Your task to perform on an android device: Go to wifi settings Image 0: 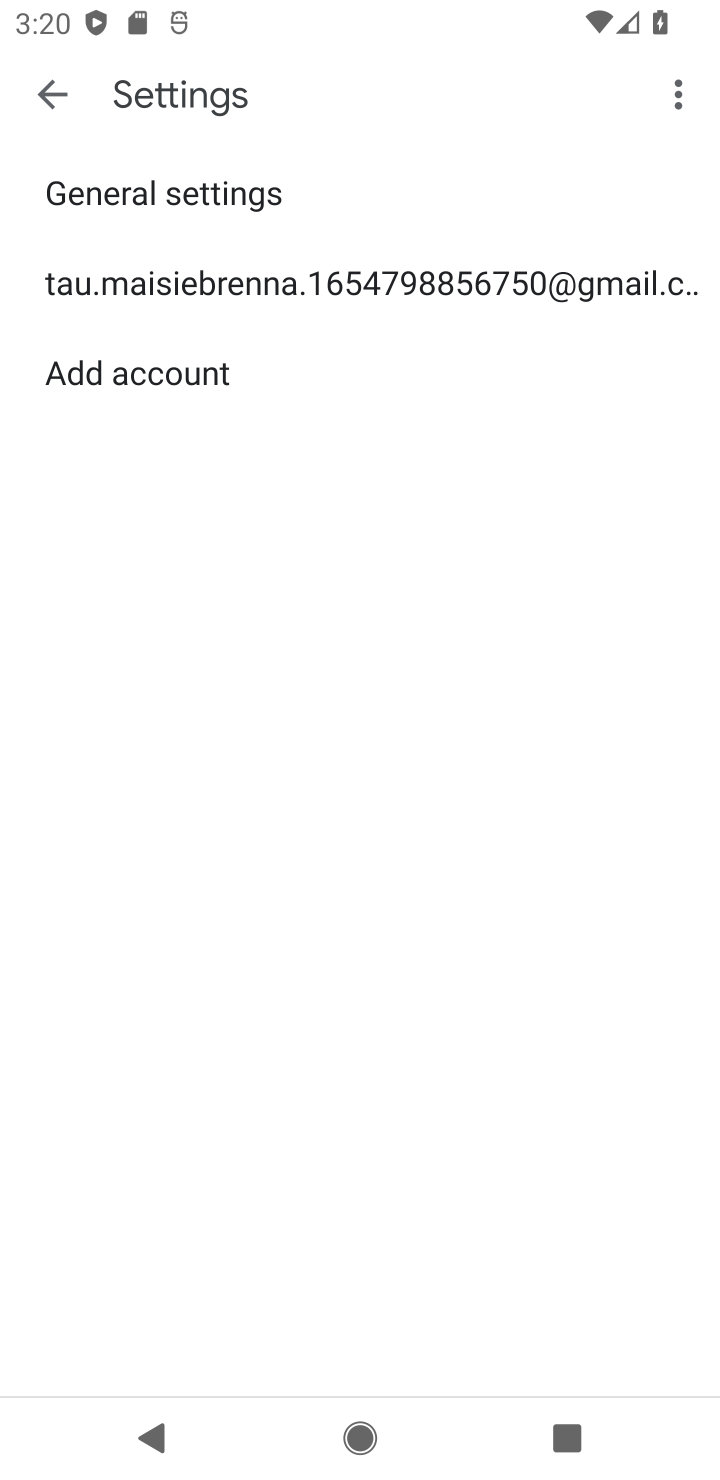
Step 0: press back button
Your task to perform on an android device: Go to wifi settings Image 1: 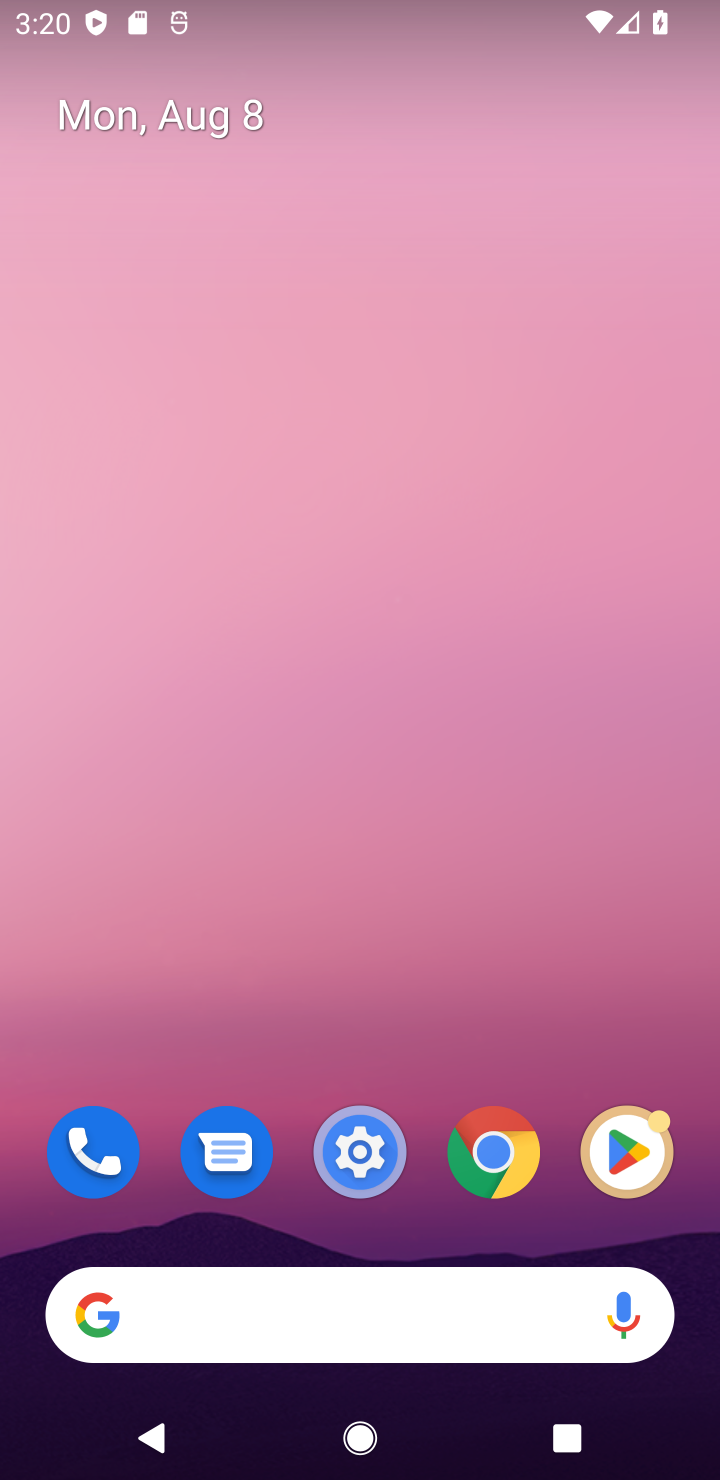
Step 1: drag from (427, 17) to (316, 989)
Your task to perform on an android device: Go to wifi settings Image 2: 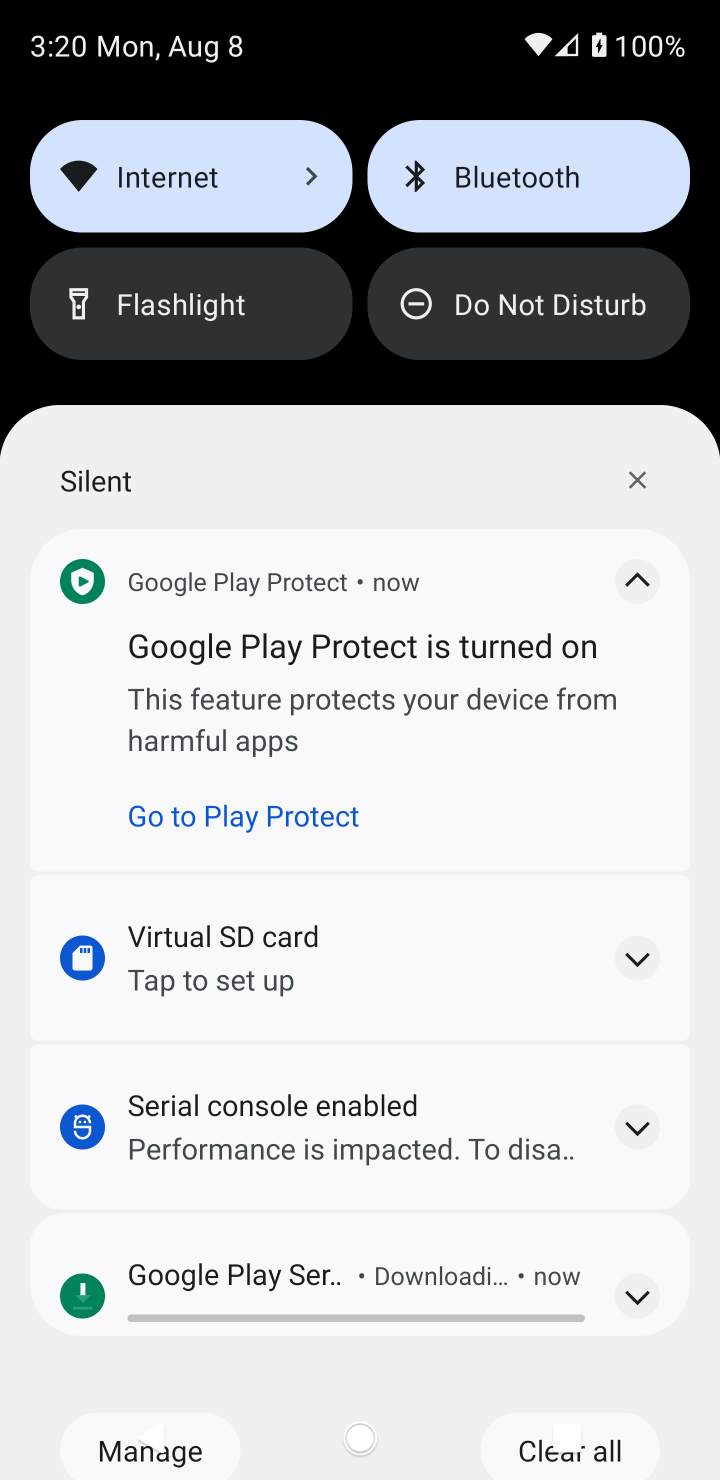
Step 2: click (168, 190)
Your task to perform on an android device: Go to wifi settings Image 3: 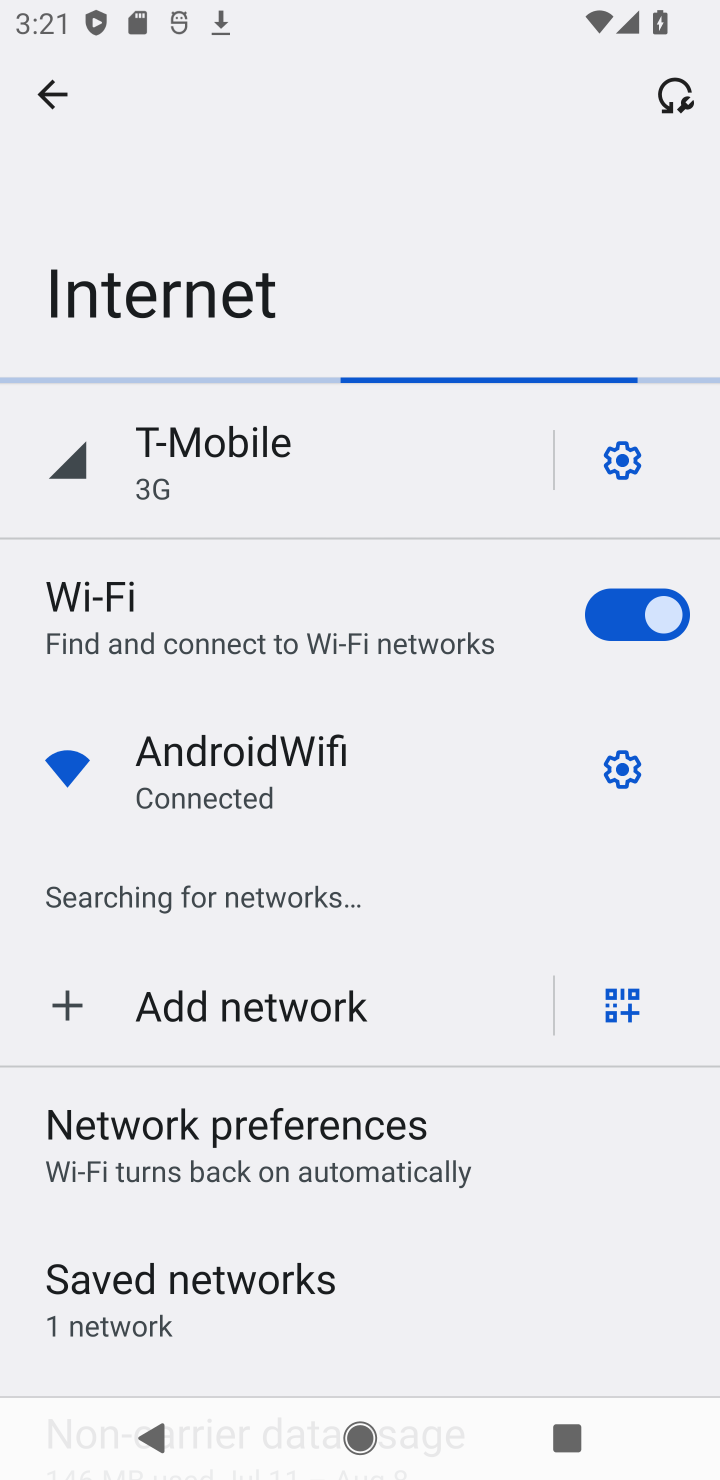
Step 3: task complete